Your task to perform on an android device: What's the weather today? Image 0: 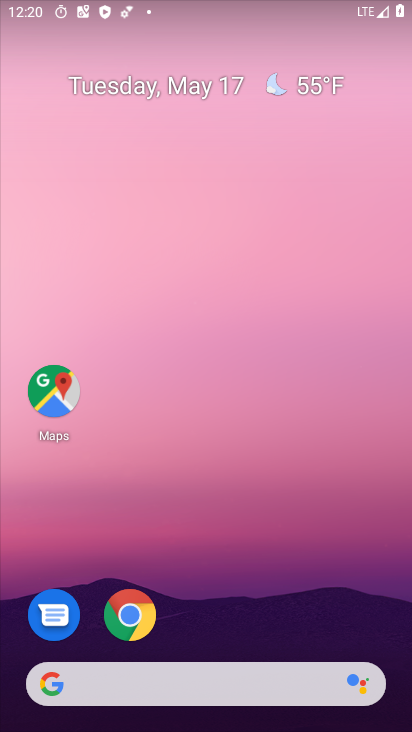
Step 0: press home button
Your task to perform on an android device: What's the weather today? Image 1: 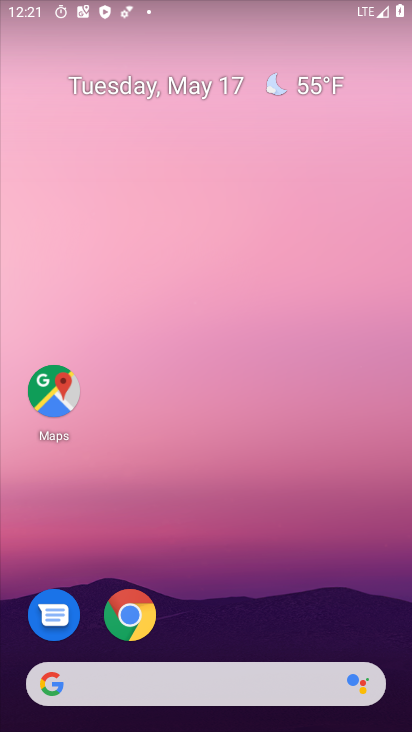
Step 1: click (147, 640)
Your task to perform on an android device: What's the weather today? Image 2: 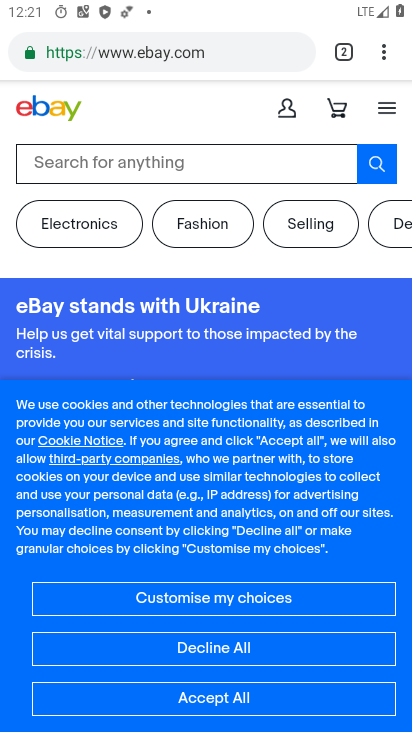
Step 2: click (216, 54)
Your task to perform on an android device: What's the weather today? Image 3: 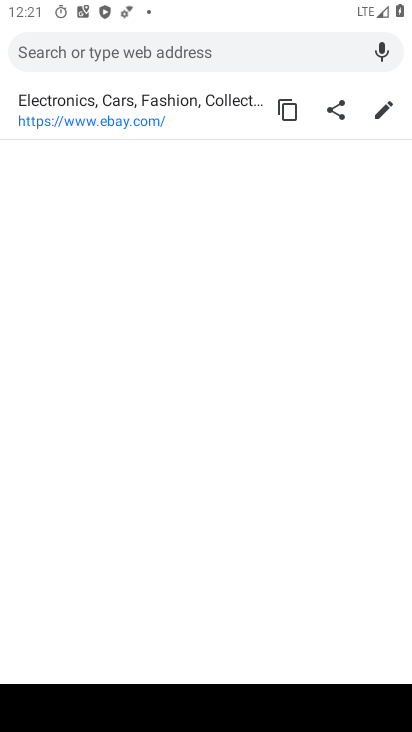
Step 3: type " What's the weather today?"
Your task to perform on an android device: What's the weather today? Image 4: 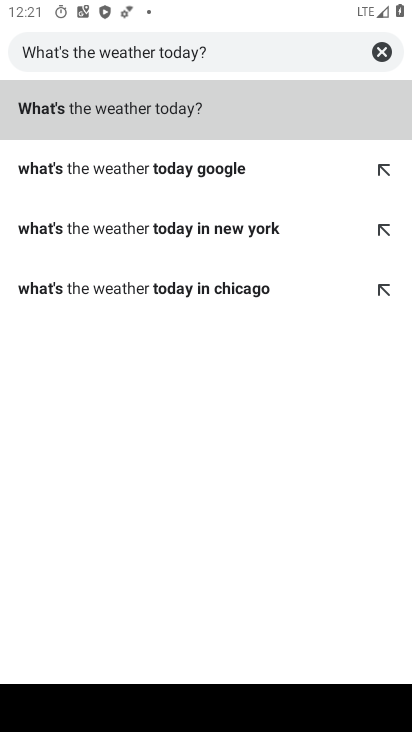
Step 4: click (66, 117)
Your task to perform on an android device: What's the weather today? Image 5: 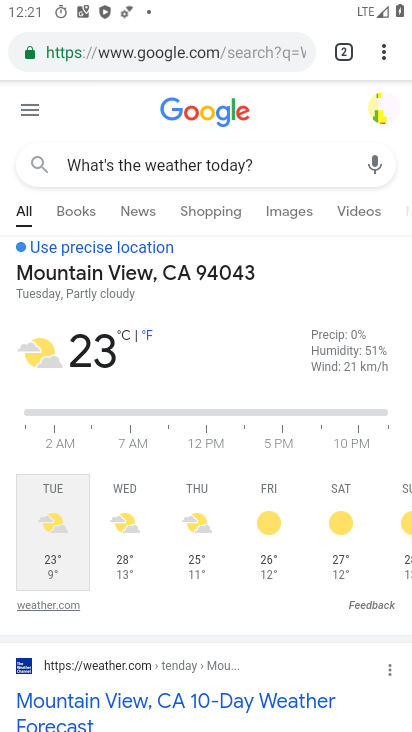
Step 5: task complete